Your task to perform on an android device: What's the weather going to be tomorrow? Image 0: 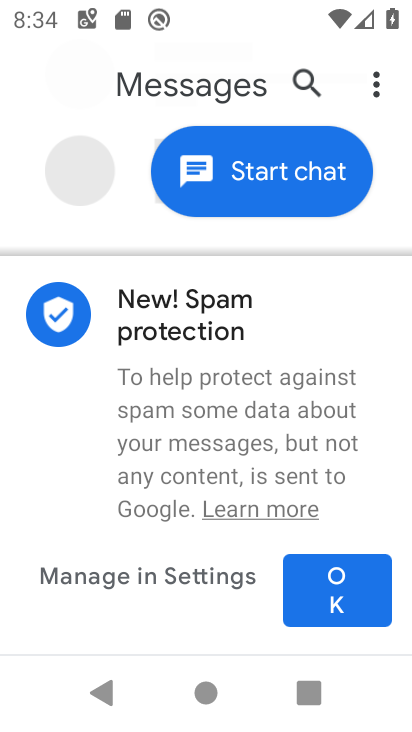
Step 0: press home button
Your task to perform on an android device: What's the weather going to be tomorrow? Image 1: 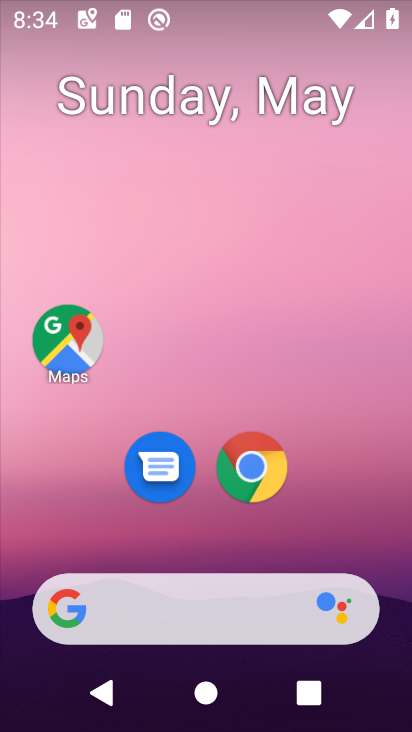
Step 1: drag from (337, 502) to (322, 112)
Your task to perform on an android device: What's the weather going to be tomorrow? Image 2: 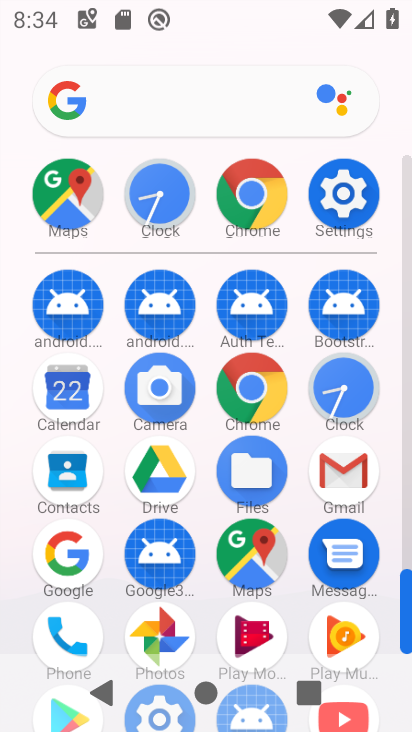
Step 2: click (240, 399)
Your task to perform on an android device: What's the weather going to be tomorrow? Image 3: 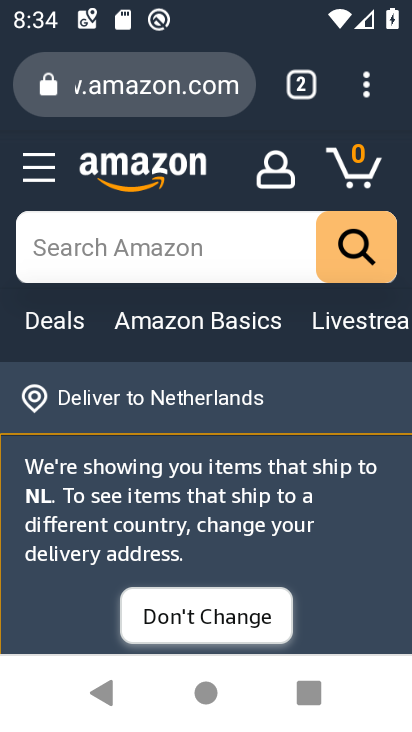
Step 3: click (147, 89)
Your task to perform on an android device: What's the weather going to be tomorrow? Image 4: 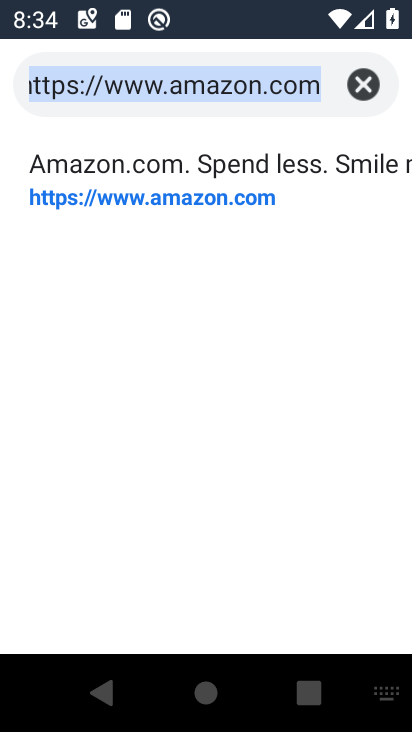
Step 4: click (359, 82)
Your task to perform on an android device: What's the weather going to be tomorrow? Image 5: 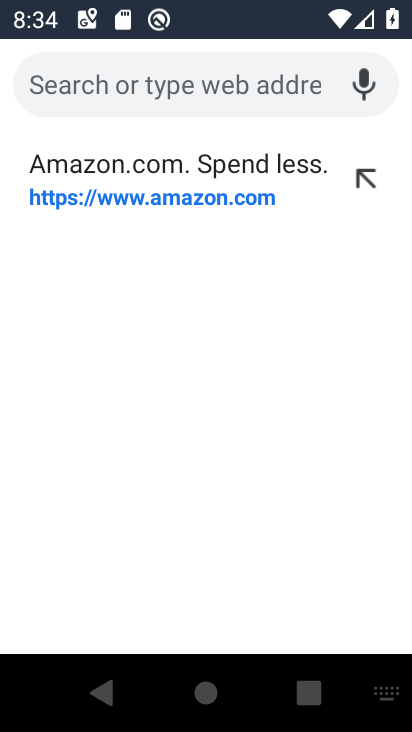
Step 5: type "what's the weather going to be tomorrow"
Your task to perform on an android device: What's the weather going to be tomorrow? Image 6: 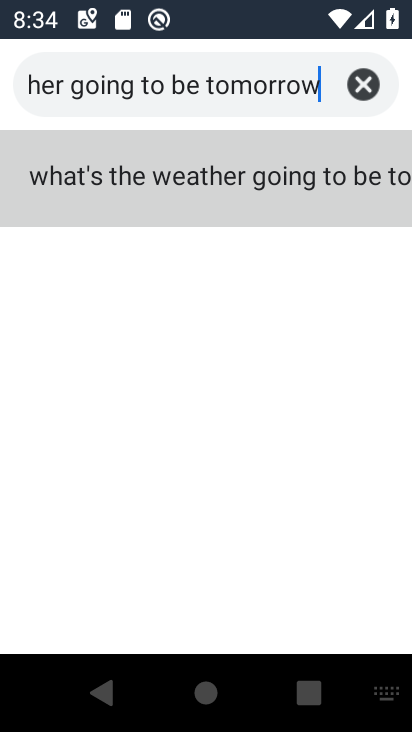
Step 6: click (251, 175)
Your task to perform on an android device: What's the weather going to be tomorrow? Image 7: 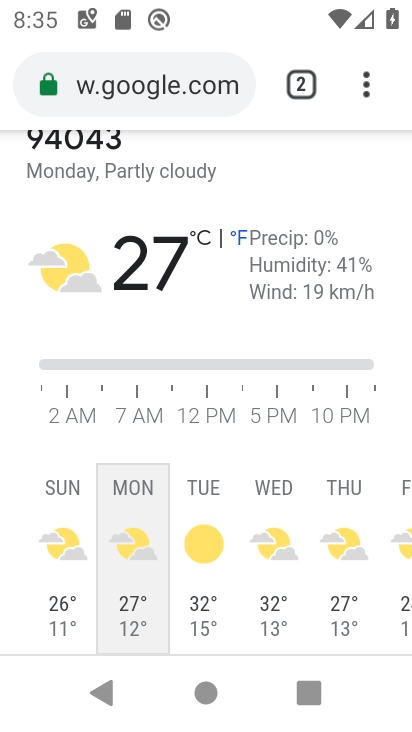
Step 7: task complete